Your task to perform on an android device: set an alarm Image 0: 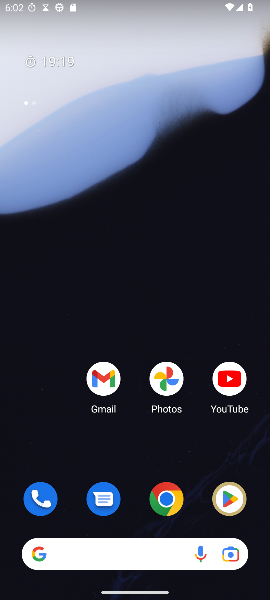
Step 0: drag from (116, 514) to (86, 126)
Your task to perform on an android device: set an alarm Image 1: 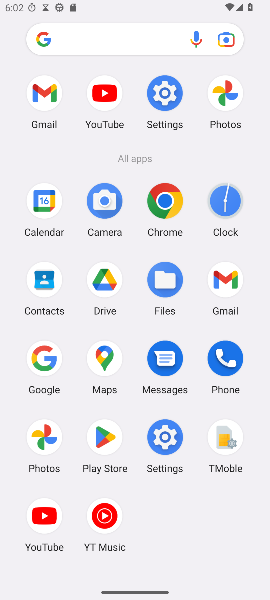
Step 1: click (226, 202)
Your task to perform on an android device: set an alarm Image 2: 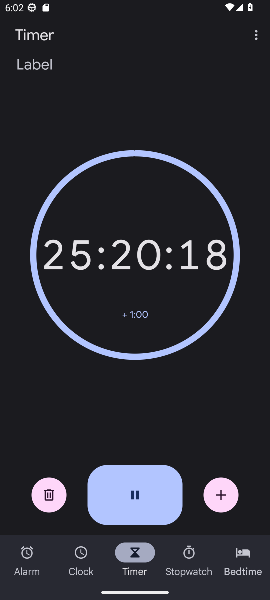
Step 2: click (13, 571)
Your task to perform on an android device: set an alarm Image 3: 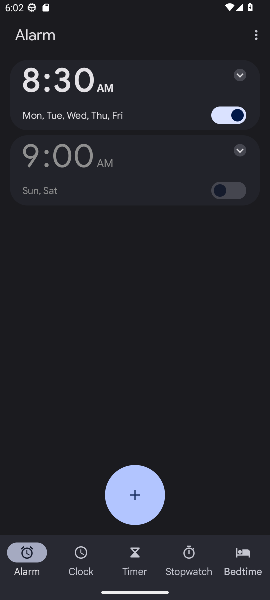
Step 3: click (237, 192)
Your task to perform on an android device: set an alarm Image 4: 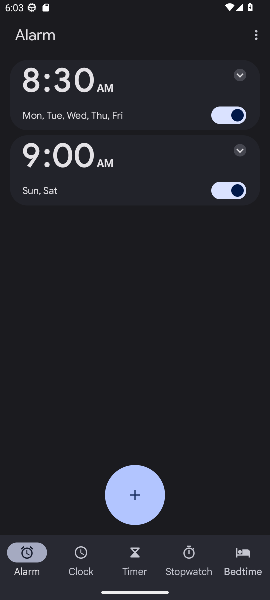
Step 4: task complete